Your task to perform on an android device: allow notifications from all sites in the chrome app Image 0: 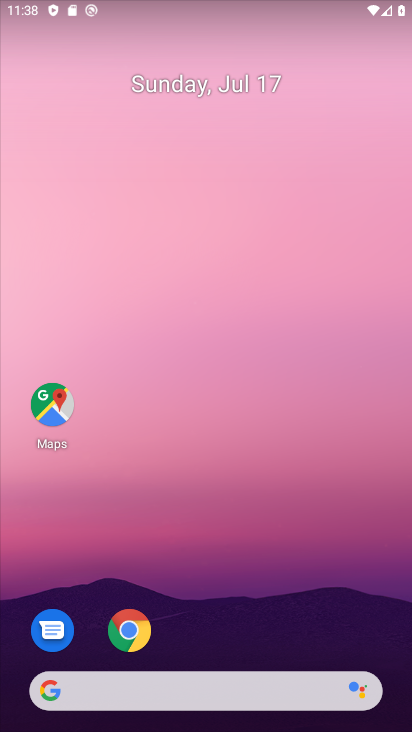
Step 0: click (124, 635)
Your task to perform on an android device: allow notifications from all sites in the chrome app Image 1: 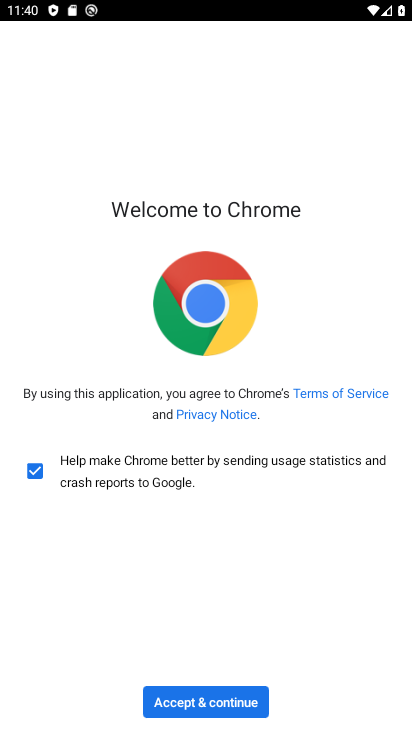
Step 1: click (181, 707)
Your task to perform on an android device: allow notifications from all sites in the chrome app Image 2: 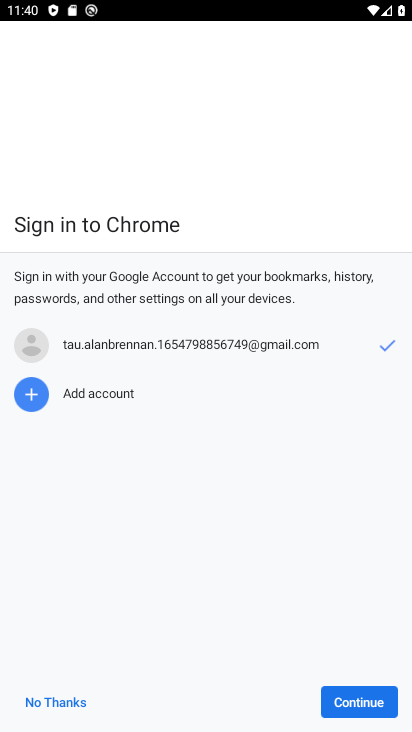
Step 2: click (357, 701)
Your task to perform on an android device: allow notifications from all sites in the chrome app Image 3: 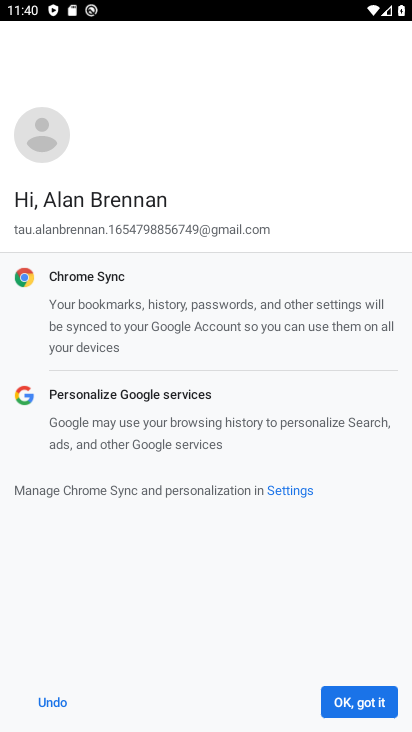
Step 3: click (348, 704)
Your task to perform on an android device: allow notifications from all sites in the chrome app Image 4: 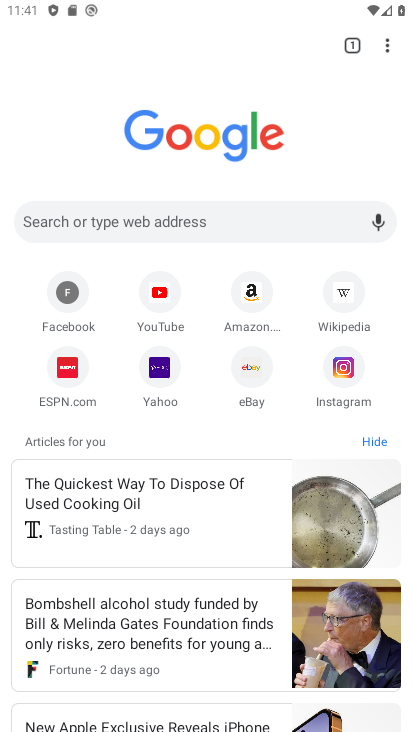
Step 4: click (387, 39)
Your task to perform on an android device: allow notifications from all sites in the chrome app Image 5: 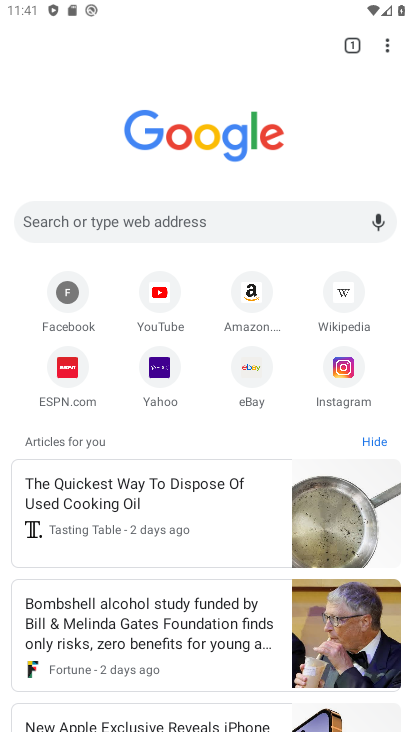
Step 5: click (389, 42)
Your task to perform on an android device: allow notifications from all sites in the chrome app Image 6: 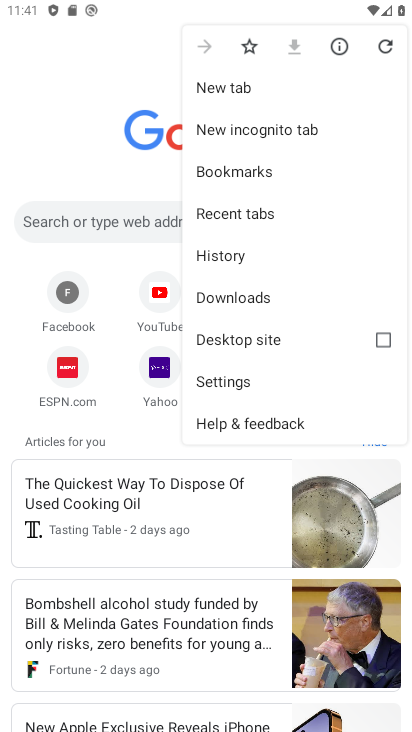
Step 6: click (217, 371)
Your task to perform on an android device: allow notifications from all sites in the chrome app Image 7: 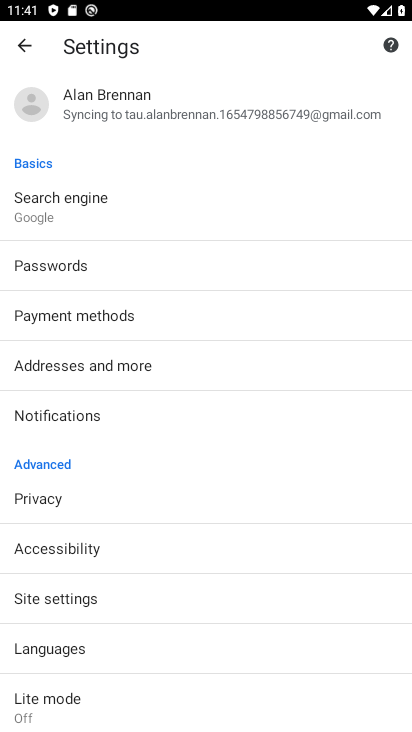
Step 7: click (34, 593)
Your task to perform on an android device: allow notifications from all sites in the chrome app Image 8: 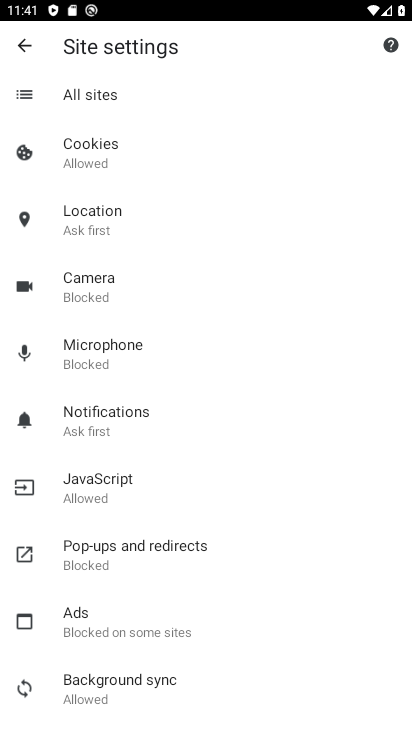
Step 8: click (75, 145)
Your task to perform on an android device: allow notifications from all sites in the chrome app Image 9: 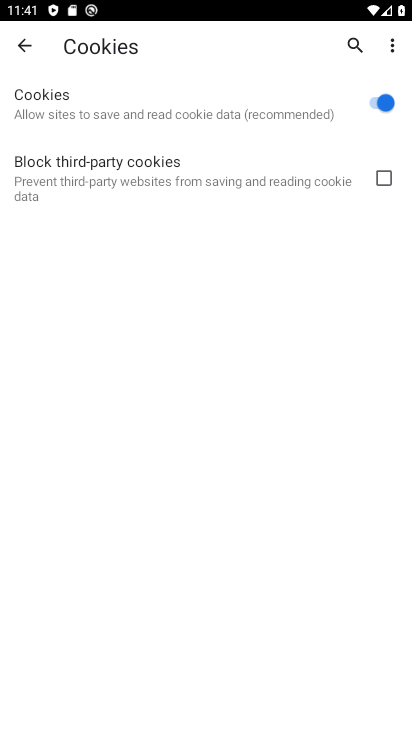
Step 9: click (25, 48)
Your task to perform on an android device: allow notifications from all sites in the chrome app Image 10: 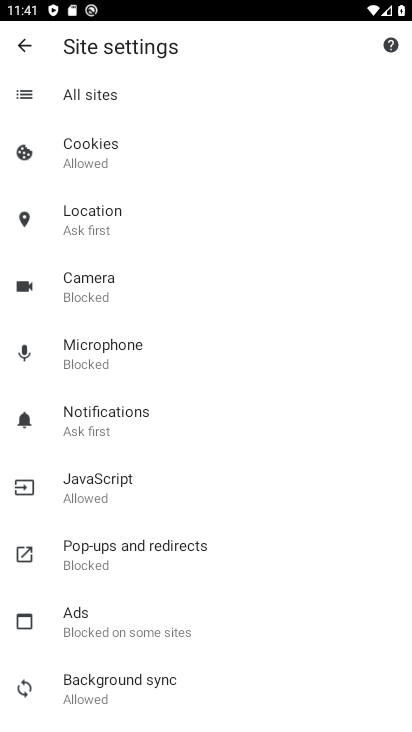
Step 10: click (86, 423)
Your task to perform on an android device: allow notifications from all sites in the chrome app Image 11: 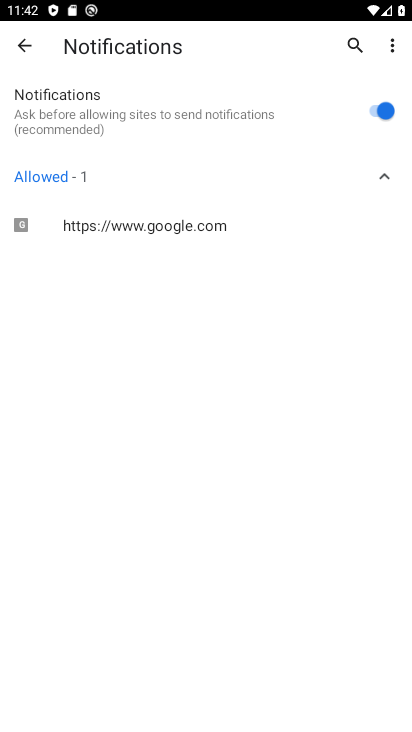
Step 11: task complete